Your task to perform on an android device: Check the settings for the Google Play Store app Image 0: 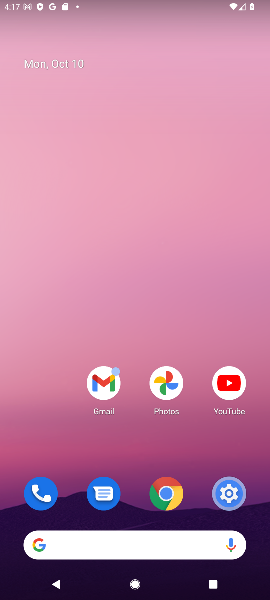
Step 0: drag from (137, 510) to (113, 67)
Your task to perform on an android device: Check the settings for the Google Play Store app Image 1: 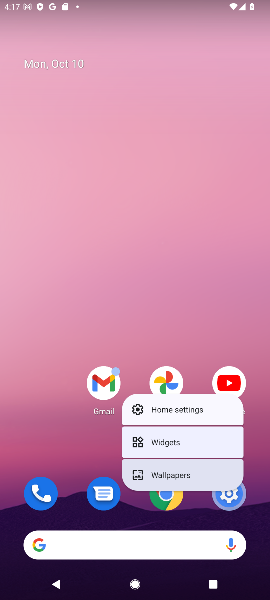
Step 1: click (126, 134)
Your task to perform on an android device: Check the settings for the Google Play Store app Image 2: 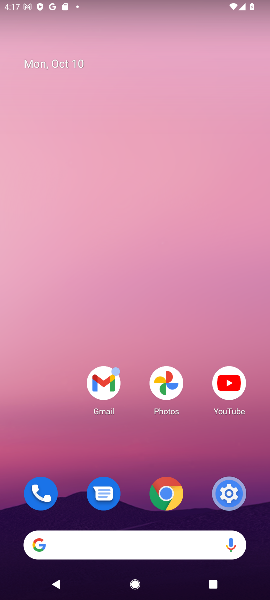
Step 2: drag from (137, 525) to (158, 218)
Your task to perform on an android device: Check the settings for the Google Play Store app Image 3: 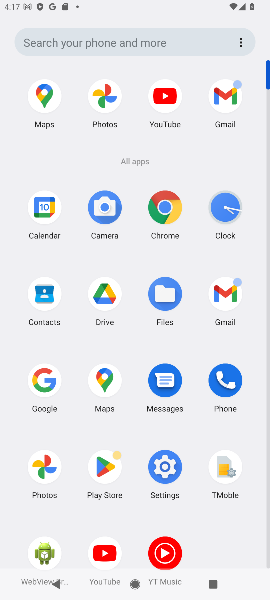
Step 3: click (102, 495)
Your task to perform on an android device: Check the settings for the Google Play Store app Image 4: 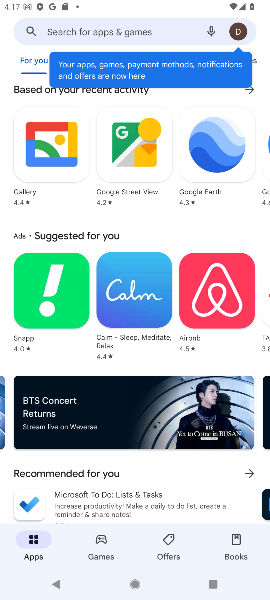
Step 4: click (239, 31)
Your task to perform on an android device: Check the settings for the Google Play Store app Image 5: 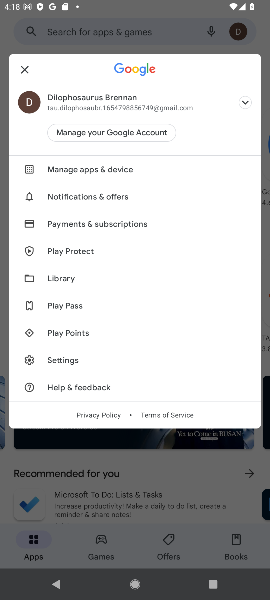
Step 5: click (76, 361)
Your task to perform on an android device: Check the settings for the Google Play Store app Image 6: 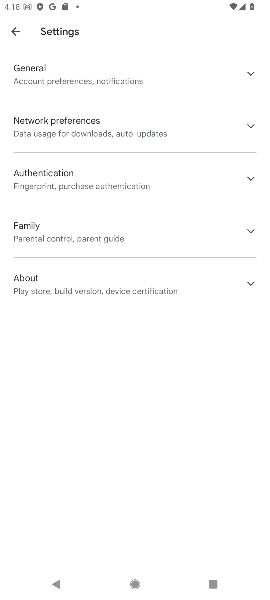
Step 6: task complete